Your task to perform on an android device: install app "Upside-Cash back on gas & food" Image 0: 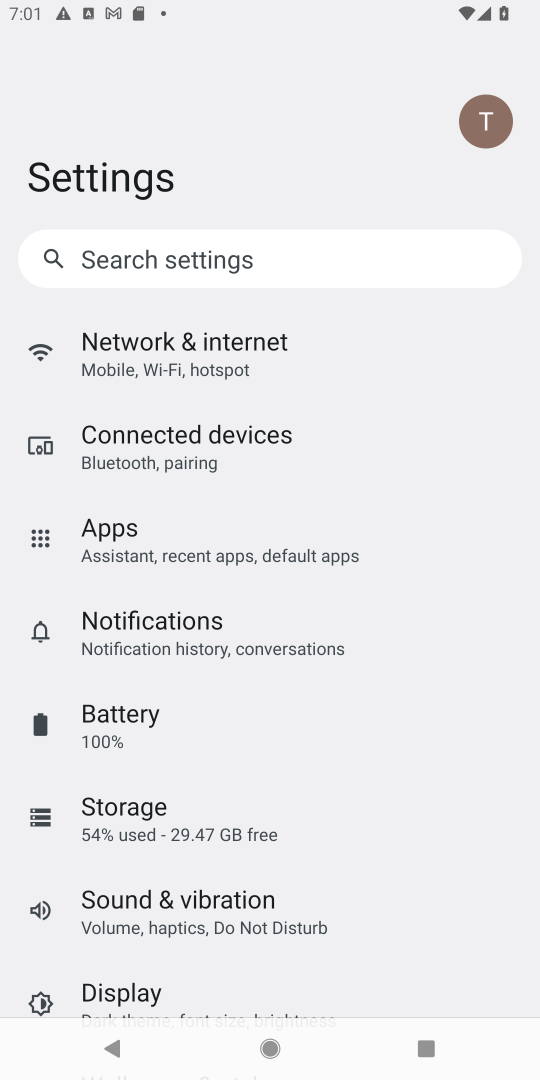
Step 0: press home button
Your task to perform on an android device: install app "Upside-Cash back on gas & food" Image 1: 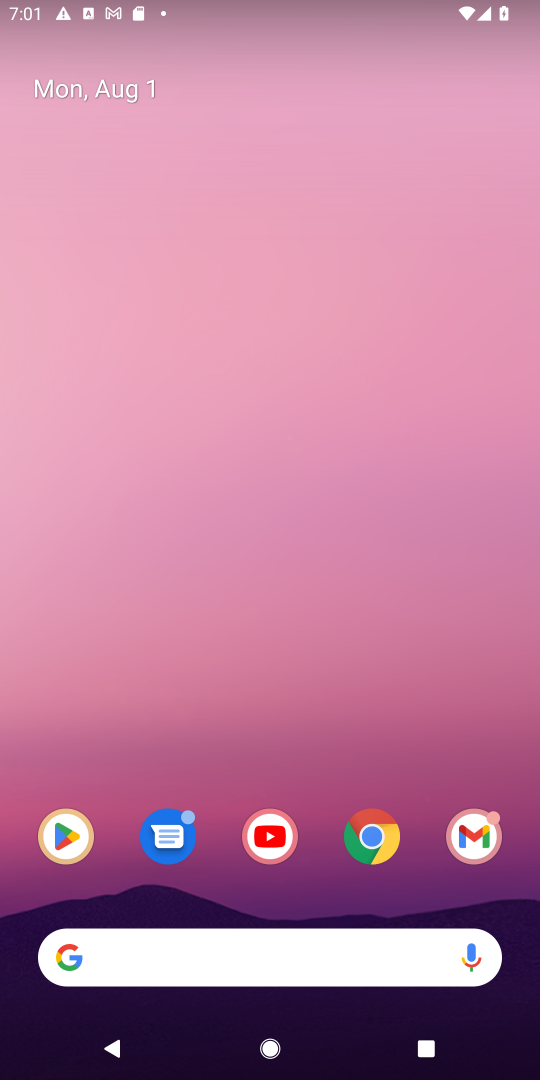
Step 1: click (69, 843)
Your task to perform on an android device: install app "Upside-Cash back on gas & food" Image 2: 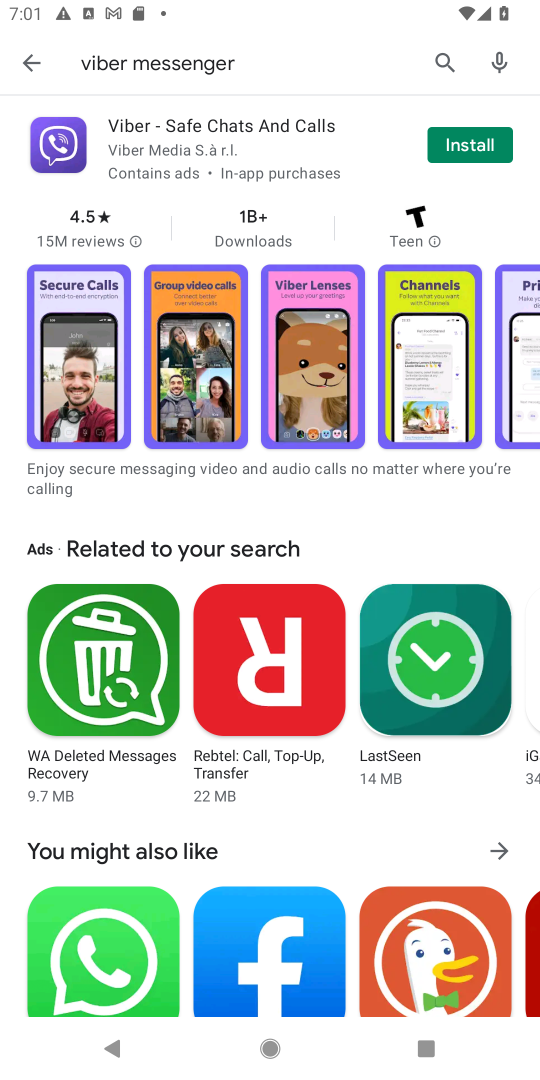
Step 2: click (442, 61)
Your task to perform on an android device: install app "Upside-Cash back on gas & food" Image 3: 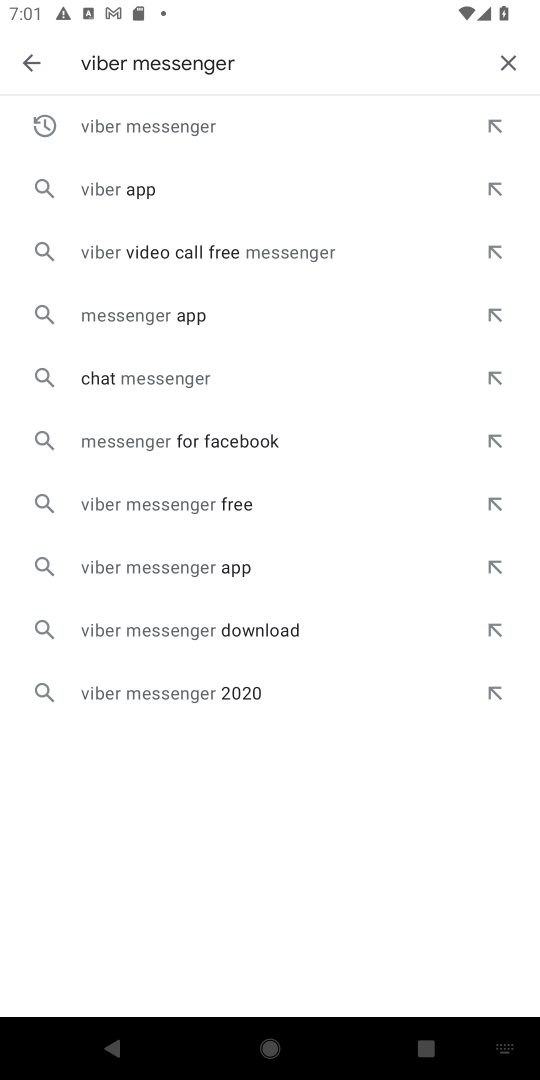
Step 3: click (508, 55)
Your task to perform on an android device: install app "Upside-Cash back on gas & food" Image 4: 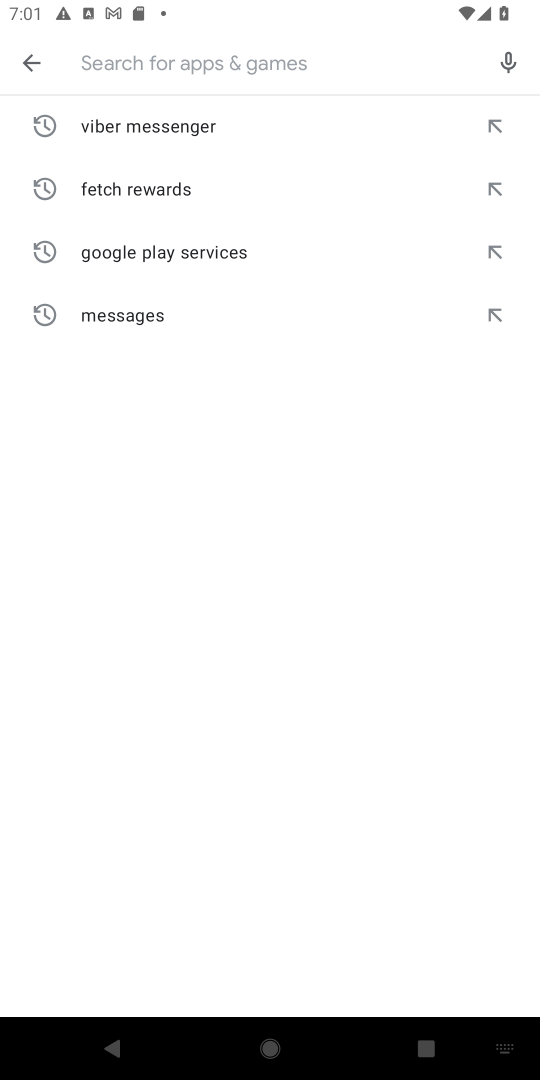
Step 4: type "Upside-Cash back on gas & food"
Your task to perform on an android device: install app "Upside-Cash back on gas & food" Image 5: 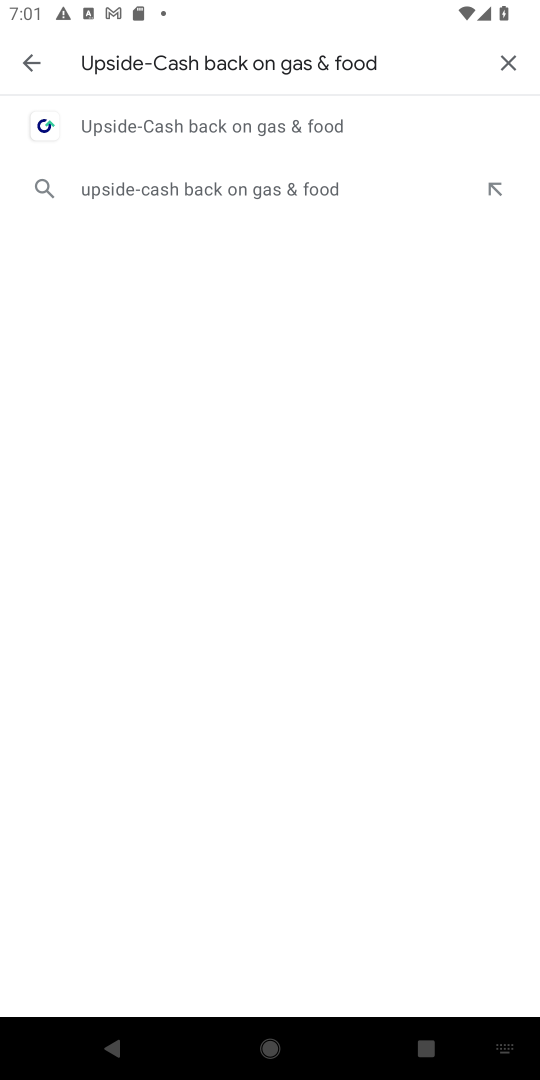
Step 5: click (176, 131)
Your task to perform on an android device: install app "Upside-Cash back on gas & food" Image 6: 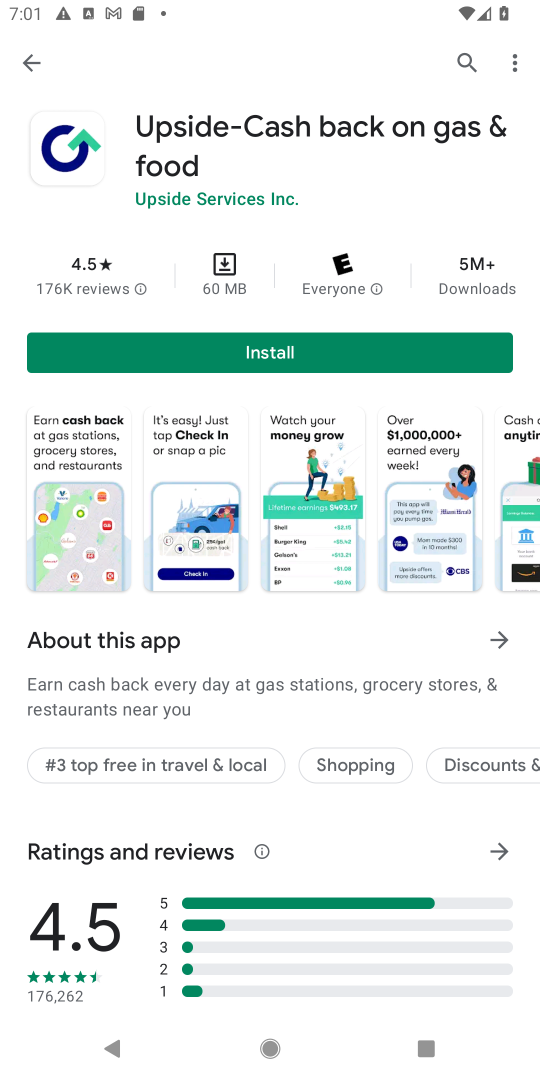
Step 6: click (245, 342)
Your task to perform on an android device: install app "Upside-Cash back on gas & food" Image 7: 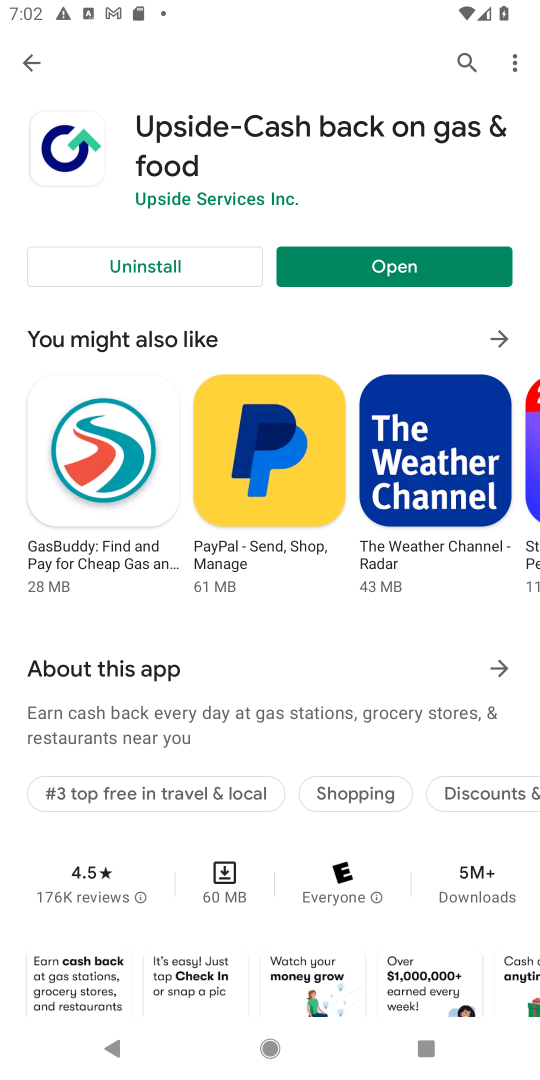
Step 7: task complete